Your task to perform on an android device: refresh tabs in the chrome app Image 0: 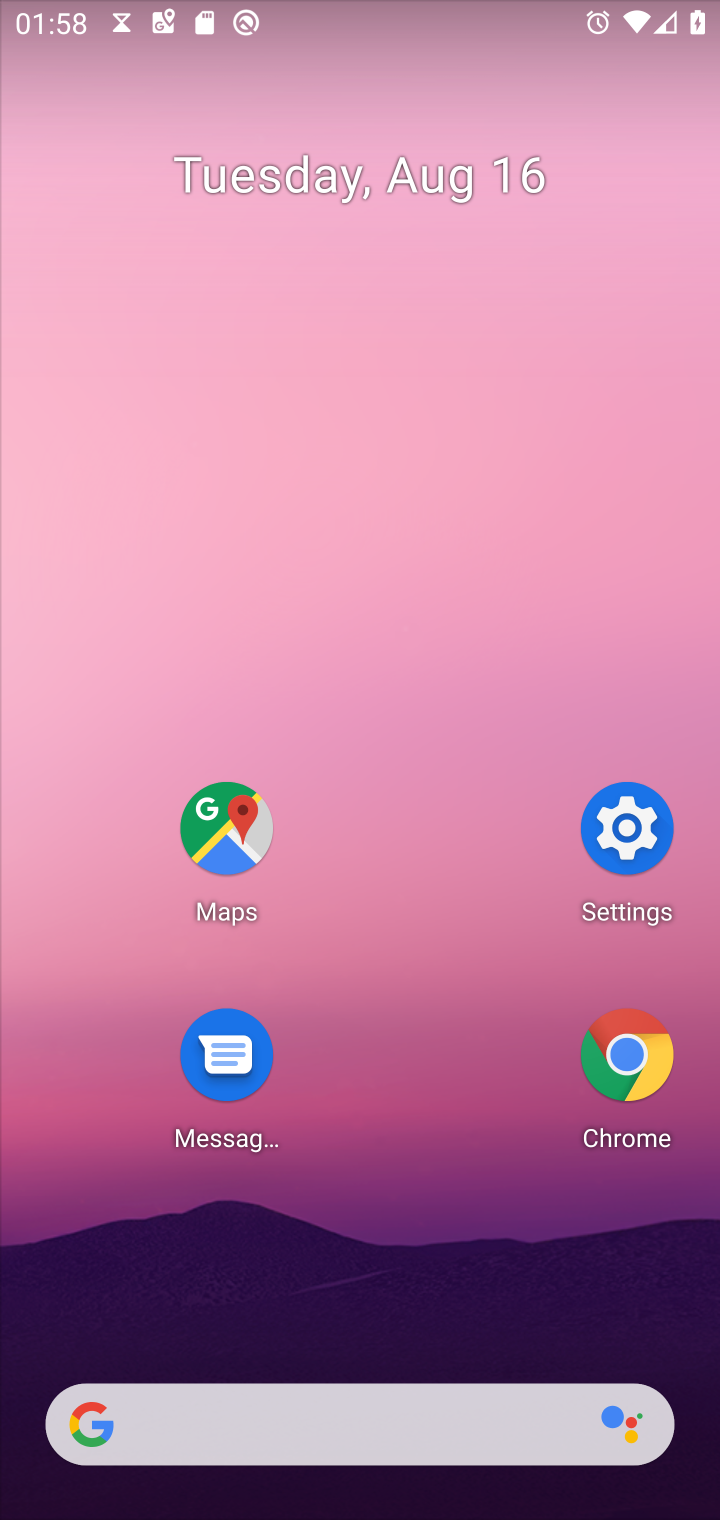
Step 0: press home button
Your task to perform on an android device: refresh tabs in the chrome app Image 1: 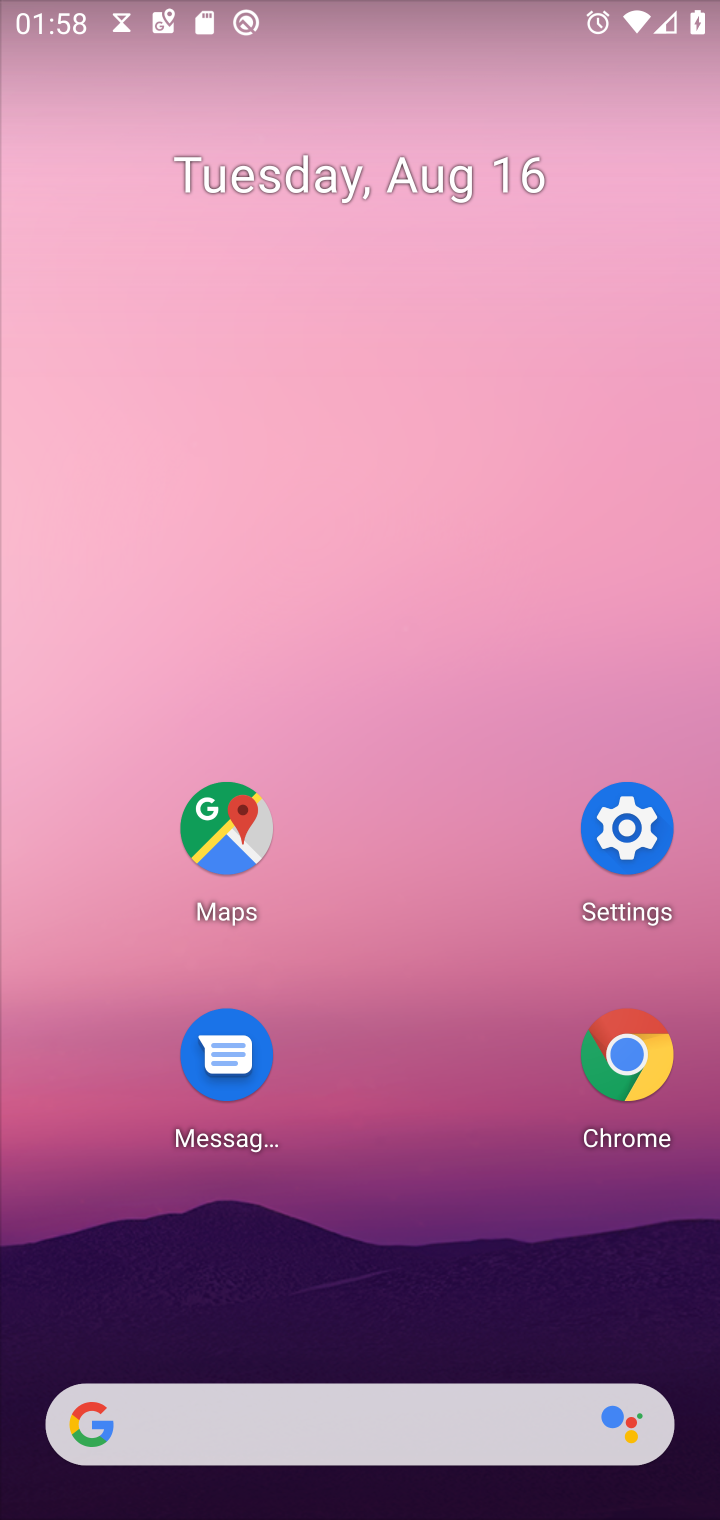
Step 1: click (625, 1079)
Your task to perform on an android device: refresh tabs in the chrome app Image 2: 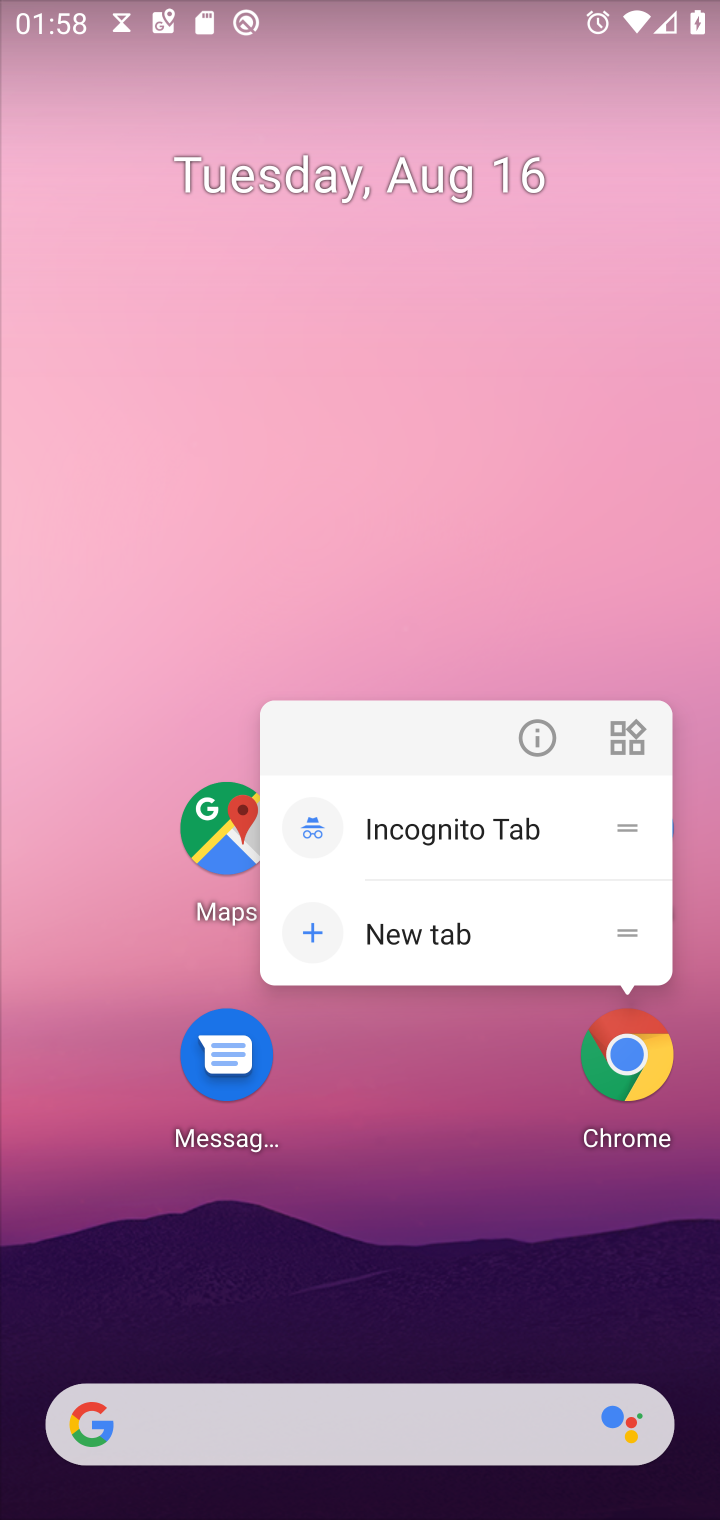
Step 2: click (635, 1045)
Your task to perform on an android device: refresh tabs in the chrome app Image 3: 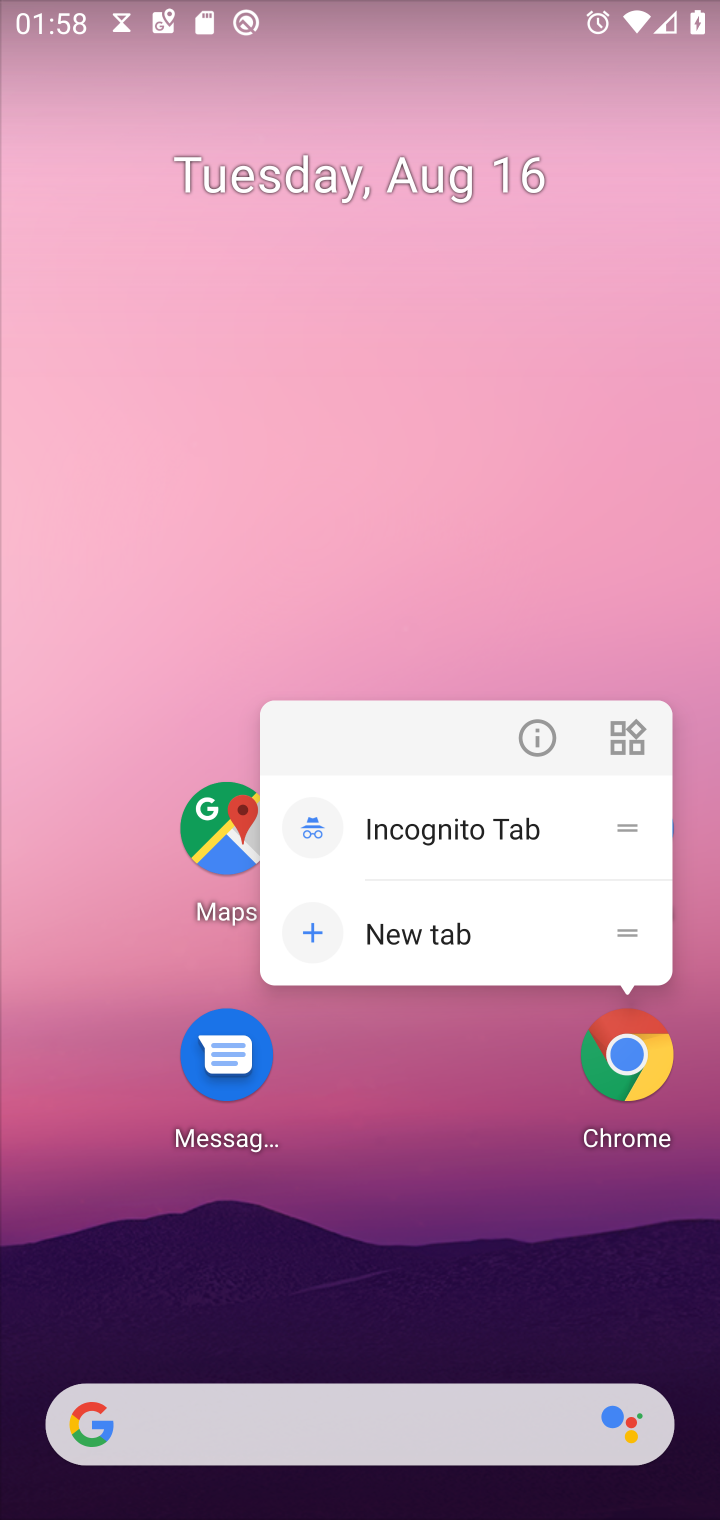
Step 3: click (635, 1045)
Your task to perform on an android device: refresh tabs in the chrome app Image 4: 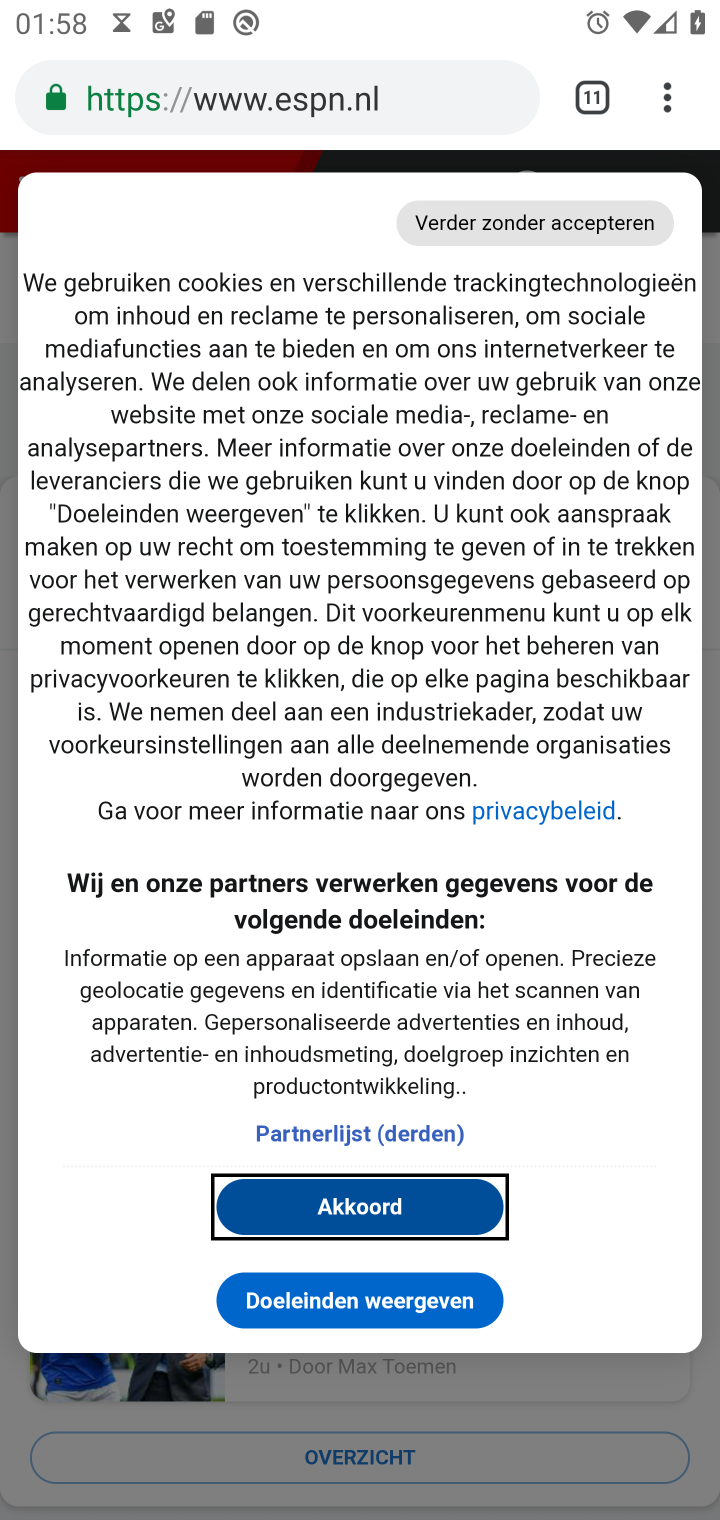
Step 4: click (672, 123)
Your task to perform on an android device: refresh tabs in the chrome app Image 5: 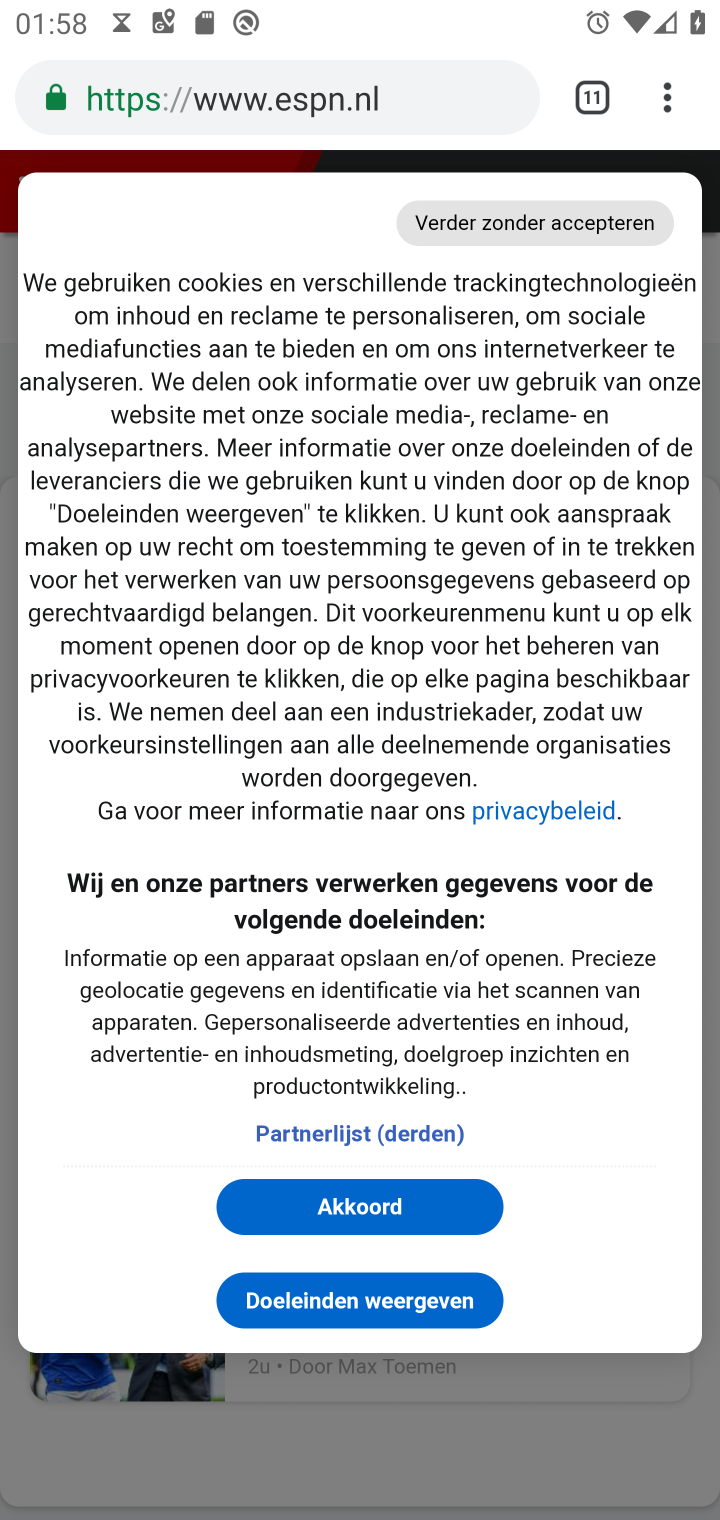
Step 5: task complete